Your task to perform on an android device: find photos in the google photos app Image 0: 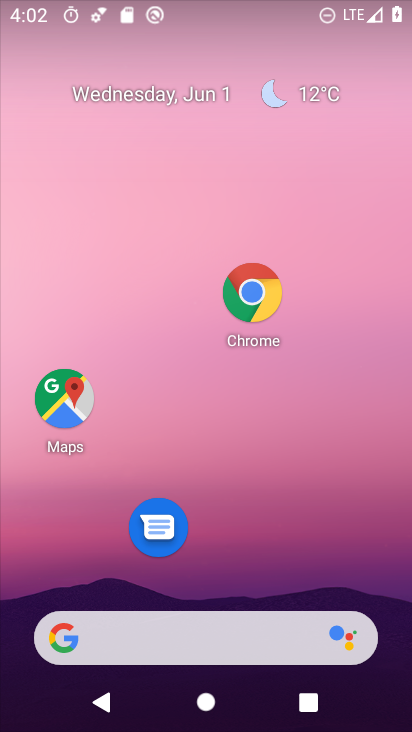
Step 0: drag from (316, 542) to (315, 92)
Your task to perform on an android device: find photos in the google photos app Image 1: 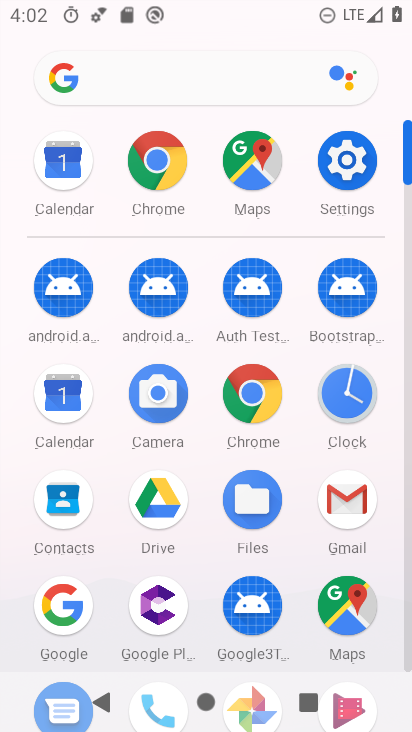
Step 1: drag from (192, 549) to (247, 225)
Your task to perform on an android device: find photos in the google photos app Image 2: 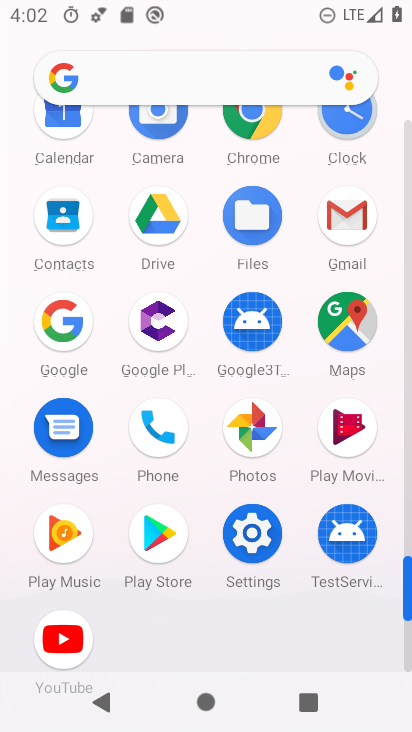
Step 2: click (256, 428)
Your task to perform on an android device: find photos in the google photos app Image 3: 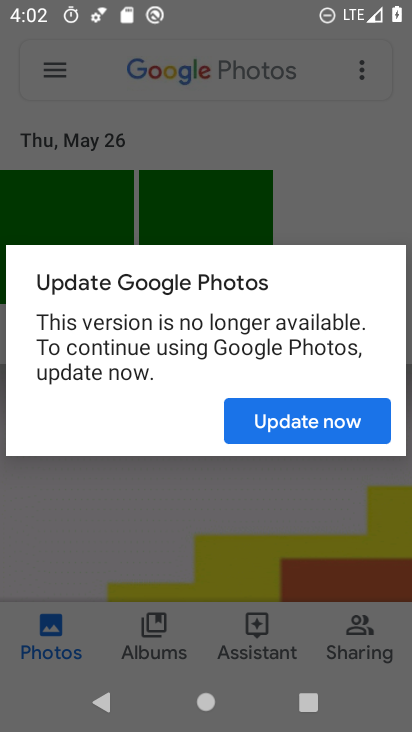
Step 3: click (320, 424)
Your task to perform on an android device: find photos in the google photos app Image 4: 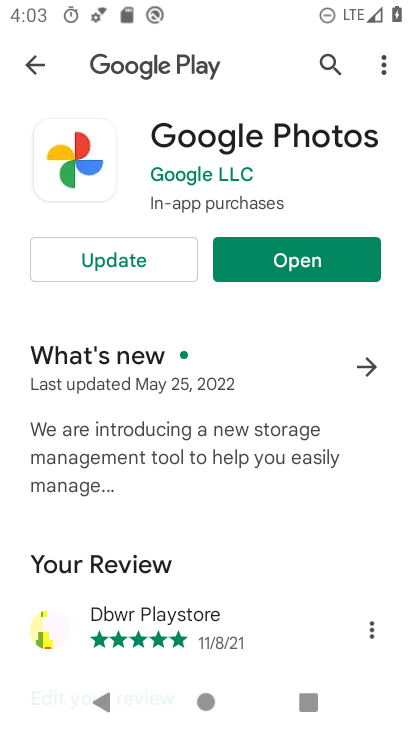
Step 4: click (321, 258)
Your task to perform on an android device: find photos in the google photos app Image 5: 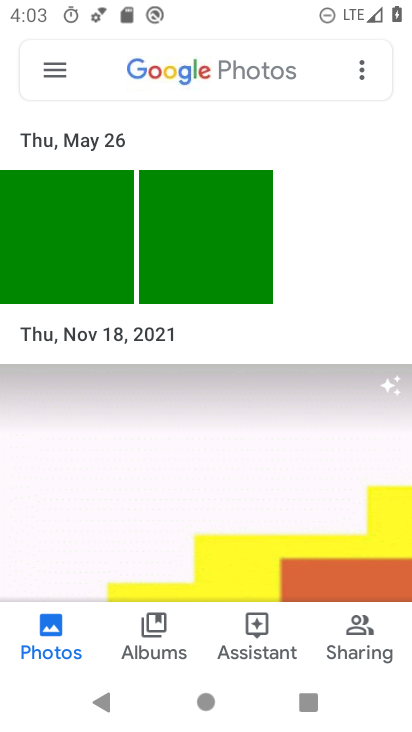
Step 5: task complete